Your task to perform on an android device: check out phone information Image 0: 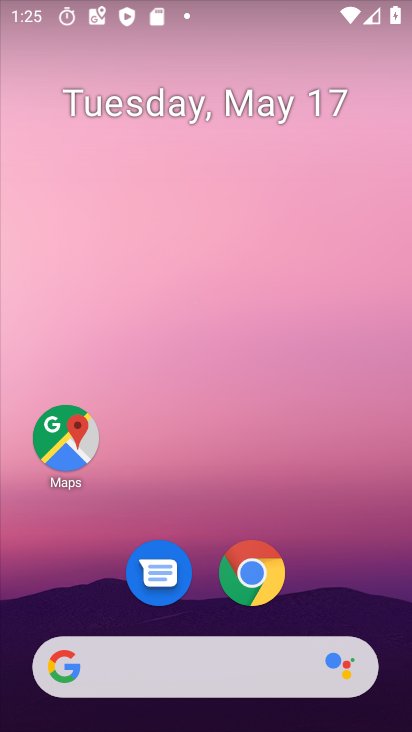
Step 0: drag from (184, 718) to (269, 118)
Your task to perform on an android device: check out phone information Image 1: 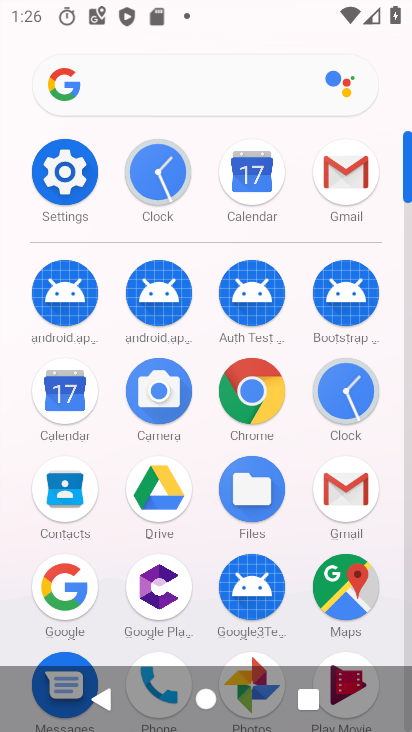
Step 1: click (46, 174)
Your task to perform on an android device: check out phone information Image 2: 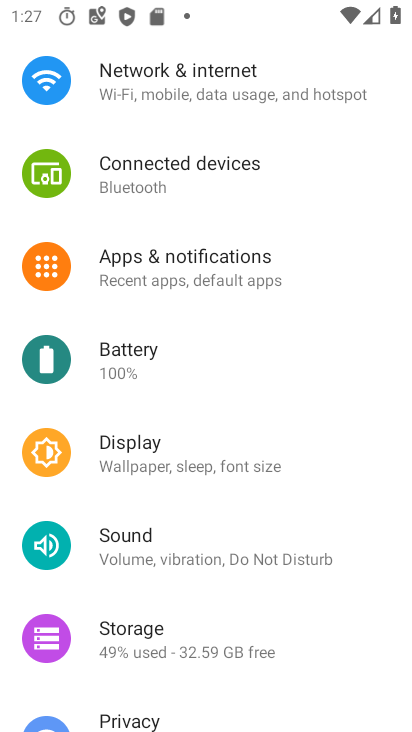
Step 2: drag from (238, 655) to (272, 18)
Your task to perform on an android device: check out phone information Image 3: 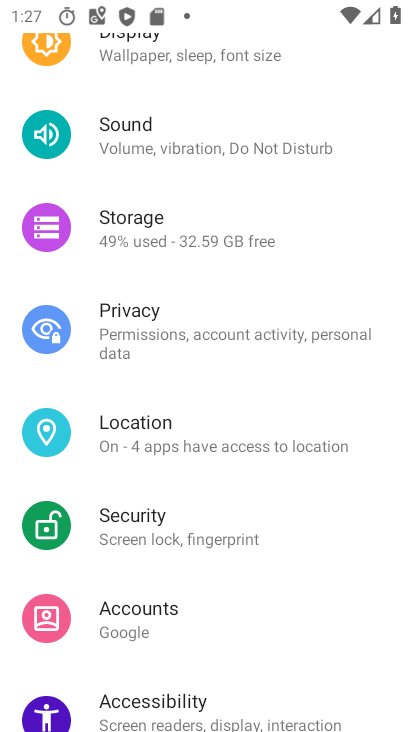
Step 3: drag from (195, 481) to (223, 112)
Your task to perform on an android device: check out phone information Image 4: 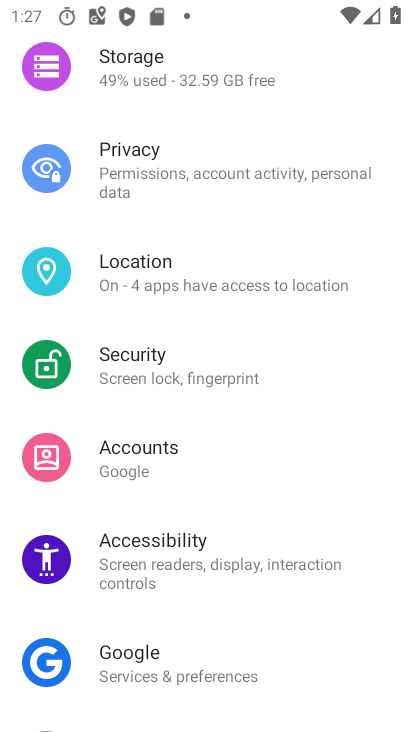
Step 4: drag from (246, 705) to (280, 104)
Your task to perform on an android device: check out phone information Image 5: 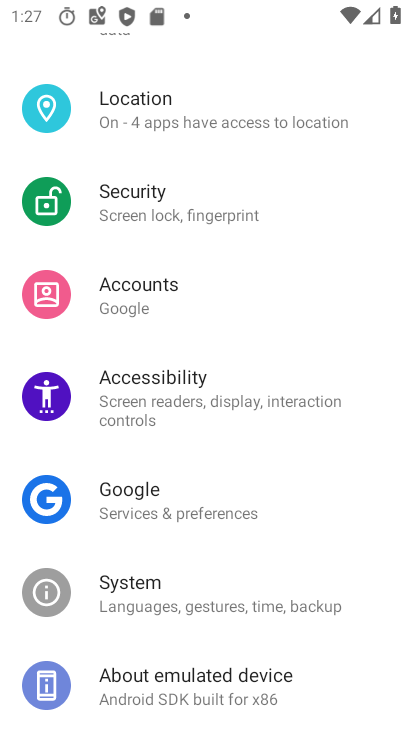
Step 5: click (258, 688)
Your task to perform on an android device: check out phone information Image 6: 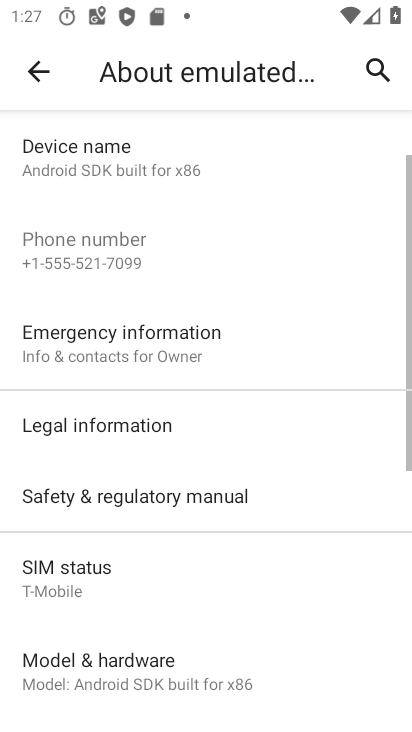
Step 6: task complete